Your task to perform on an android device: Go to ESPN.com Image 0: 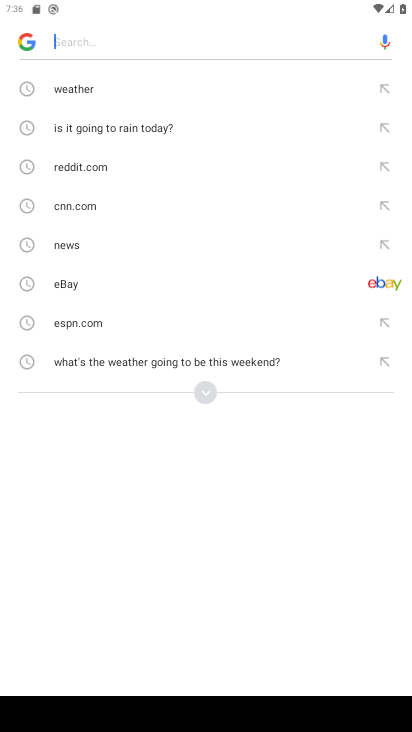
Step 0: press home button
Your task to perform on an android device: Go to ESPN.com Image 1: 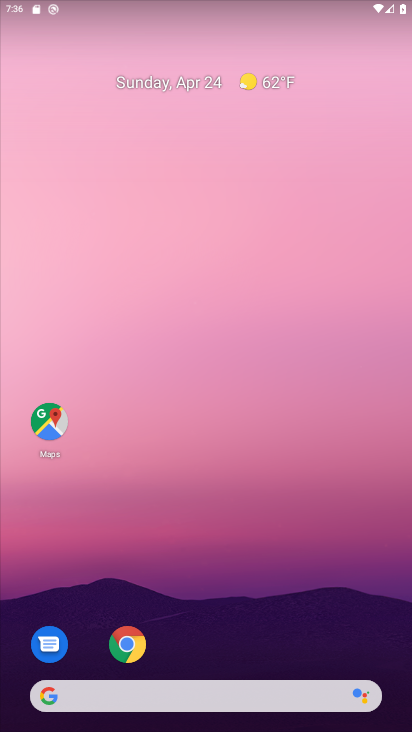
Step 1: drag from (302, 425) to (280, 102)
Your task to perform on an android device: Go to ESPN.com Image 2: 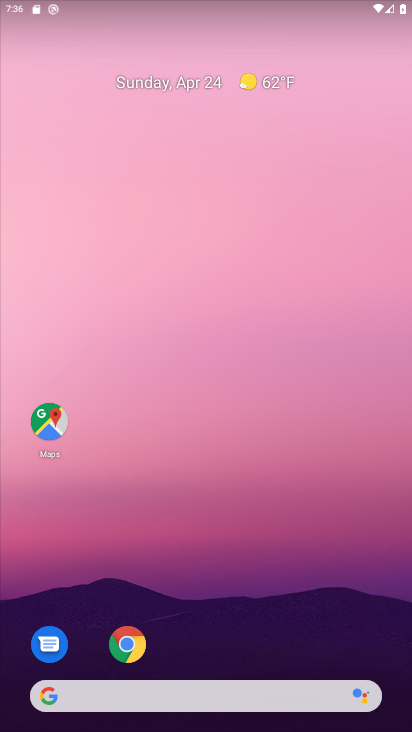
Step 2: drag from (256, 573) to (235, 88)
Your task to perform on an android device: Go to ESPN.com Image 3: 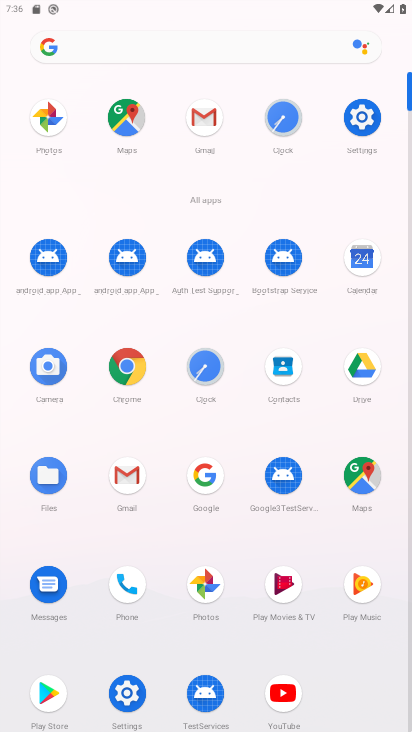
Step 3: click (118, 359)
Your task to perform on an android device: Go to ESPN.com Image 4: 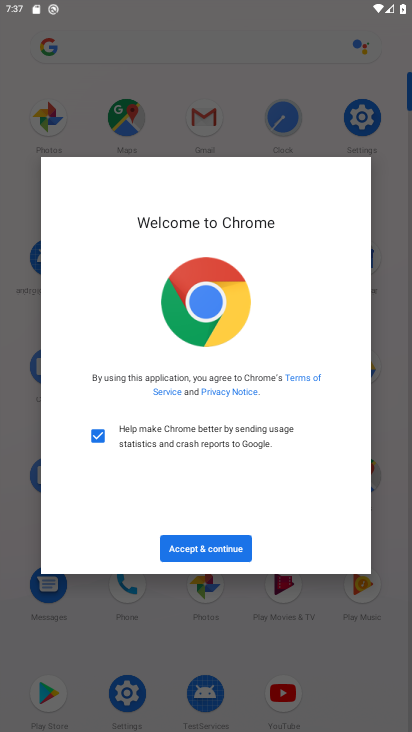
Step 4: click (193, 551)
Your task to perform on an android device: Go to ESPN.com Image 5: 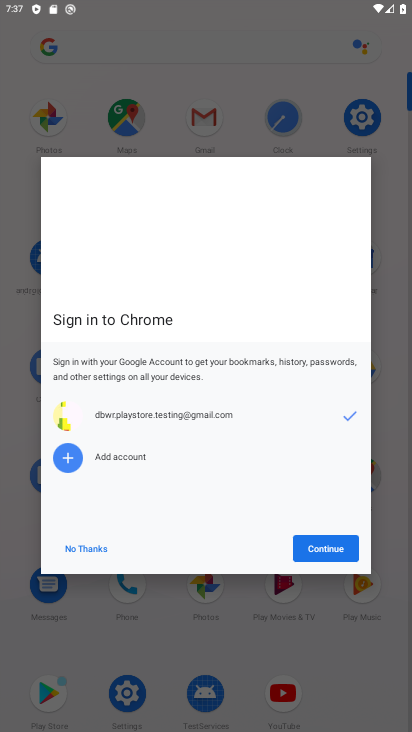
Step 5: click (341, 544)
Your task to perform on an android device: Go to ESPN.com Image 6: 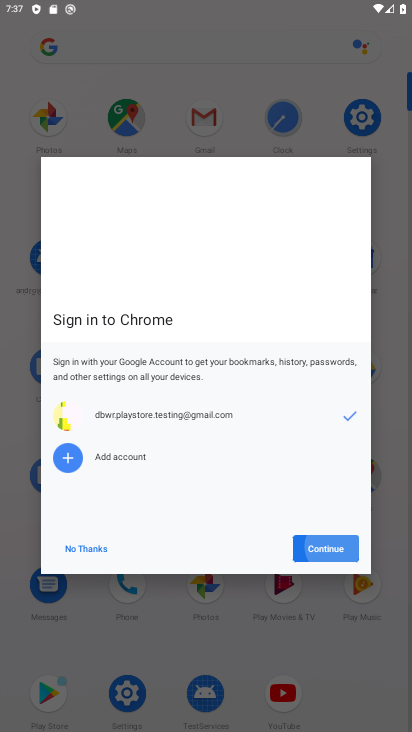
Step 6: click (341, 544)
Your task to perform on an android device: Go to ESPN.com Image 7: 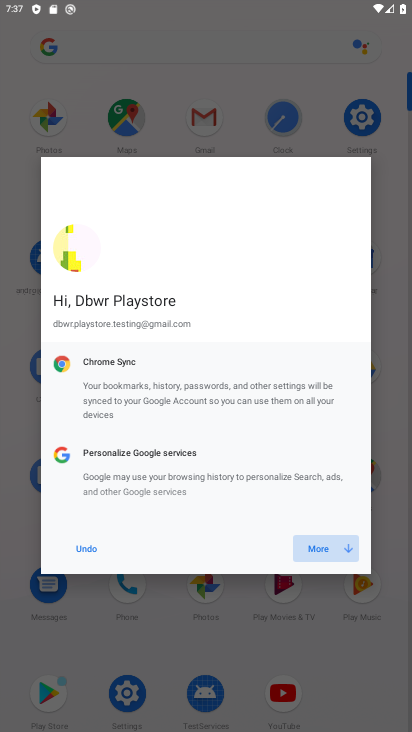
Step 7: click (339, 544)
Your task to perform on an android device: Go to ESPN.com Image 8: 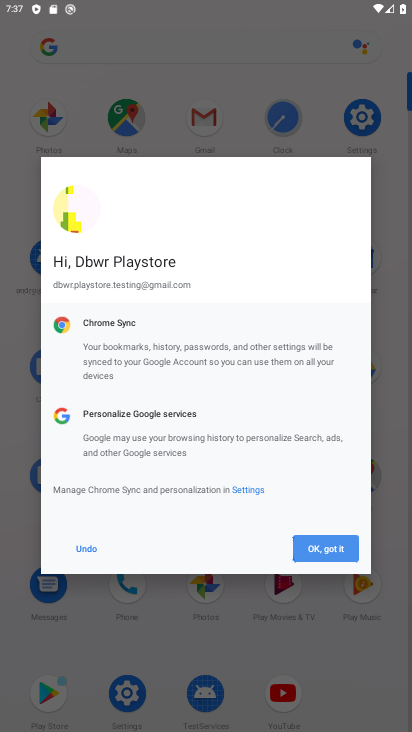
Step 8: click (339, 544)
Your task to perform on an android device: Go to ESPN.com Image 9: 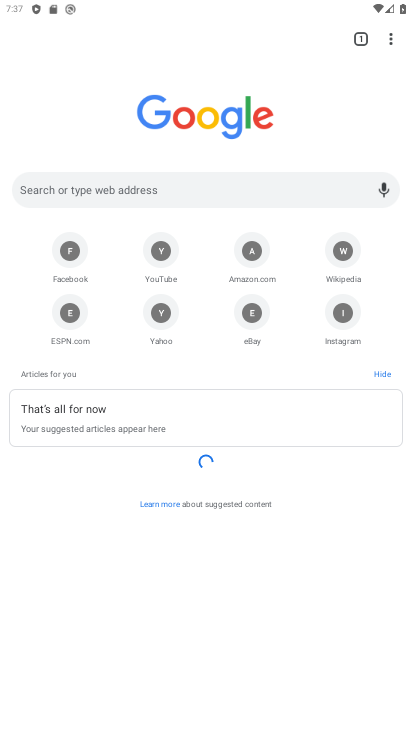
Step 9: click (256, 331)
Your task to perform on an android device: Go to ESPN.com Image 10: 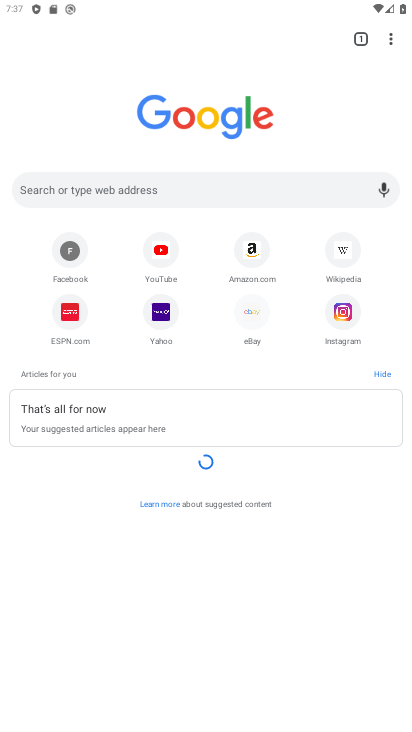
Step 10: click (257, 311)
Your task to perform on an android device: Go to ESPN.com Image 11: 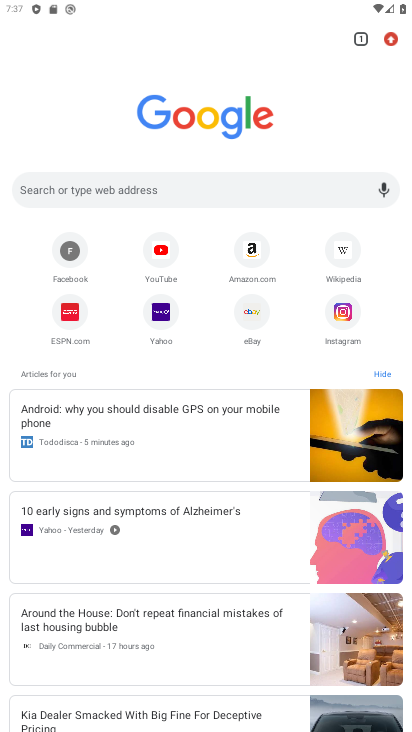
Step 11: click (254, 314)
Your task to perform on an android device: Go to ESPN.com Image 12: 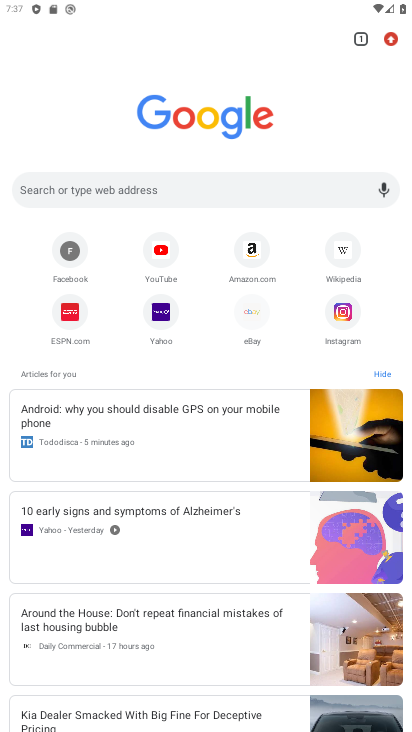
Step 12: click (254, 314)
Your task to perform on an android device: Go to ESPN.com Image 13: 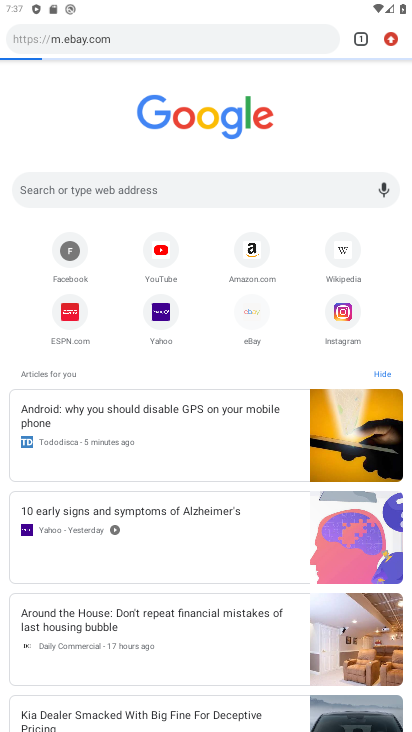
Step 13: click (256, 315)
Your task to perform on an android device: Go to ESPN.com Image 14: 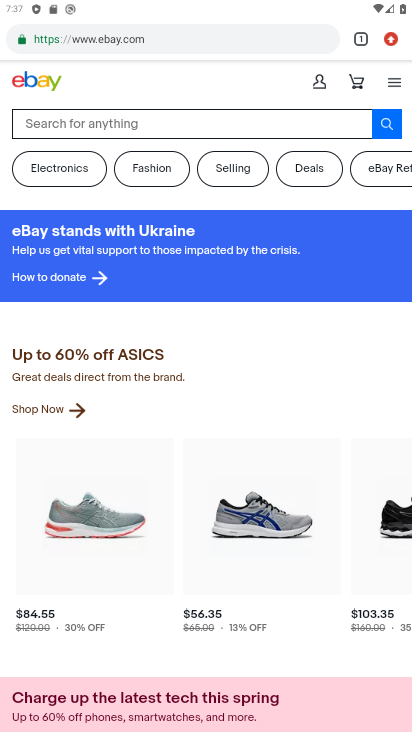
Step 14: task complete